Your task to perform on an android device: Open location settings Image 0: 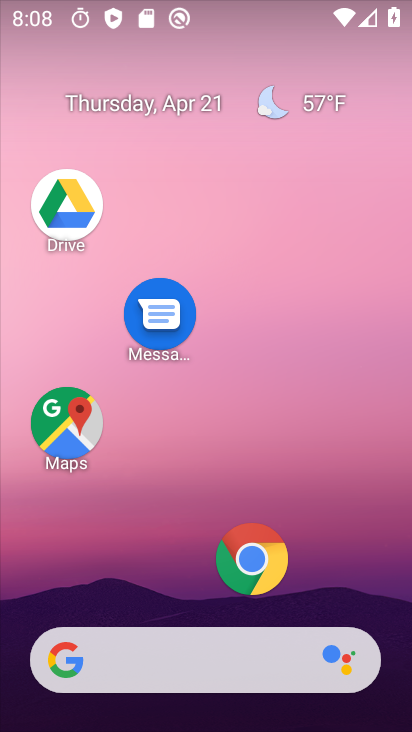
Step 0: drag from (109, 205) to (109, 32)
Your task to perform on an android device: Open location settings Image 1: 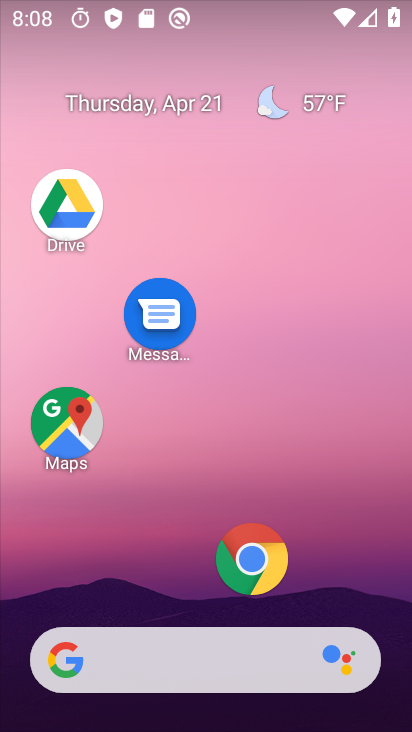
Step 1: drag from (269, 620) to (354, 69)
Your task to perform on an android device: Open location settings Image 2: 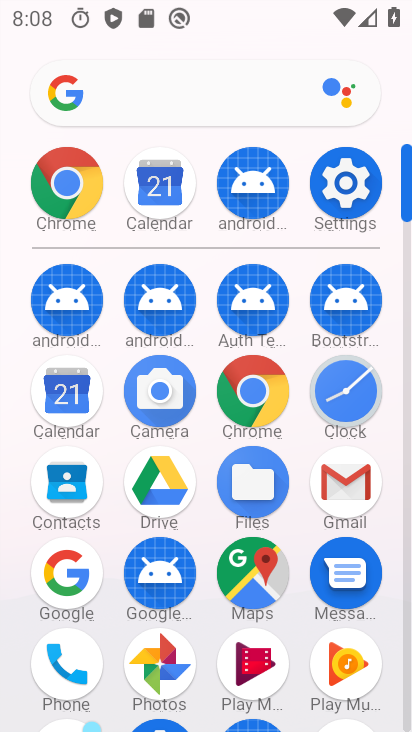
Step 2: click (345, 185)
Your task to perform on an android device: Open location settings Image 3: 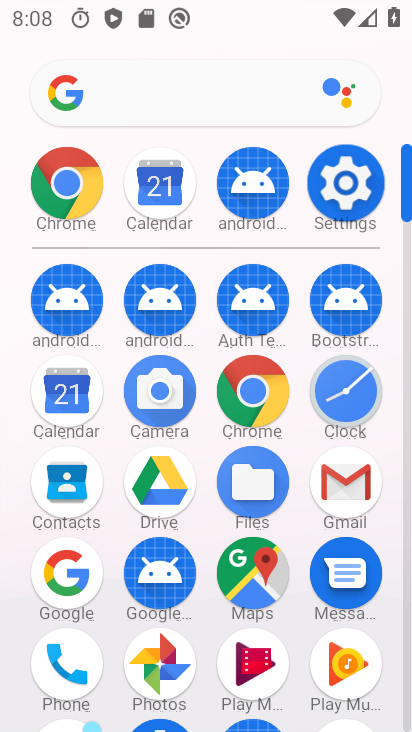
Step 3: click (345, 185)
Your task to perform on an android device: Open location settings Image 4: 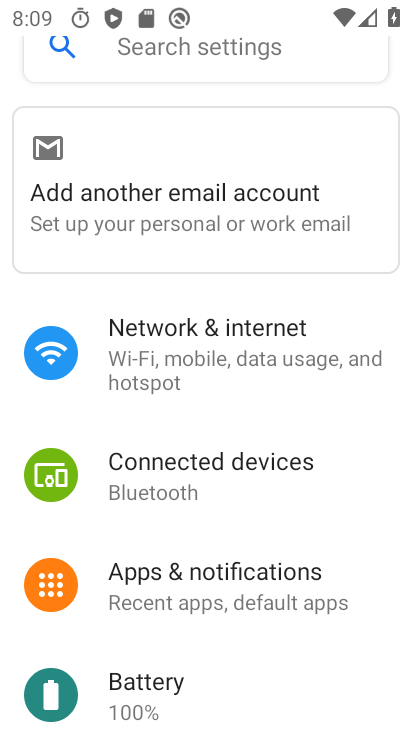
Step 4: drag from (264, 644) to (210, 237)
Your task to perform on an android device: Open location settings Image 5: 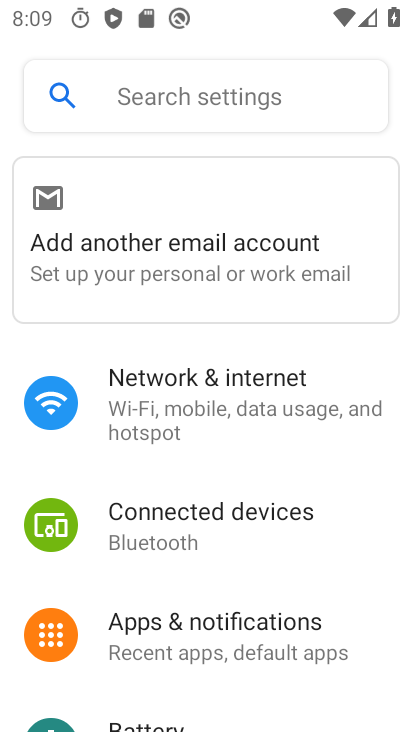
Step 5: drag from (174, 539) to (190, 217)
Your task to perform on an android device: Open location settings Image 6: 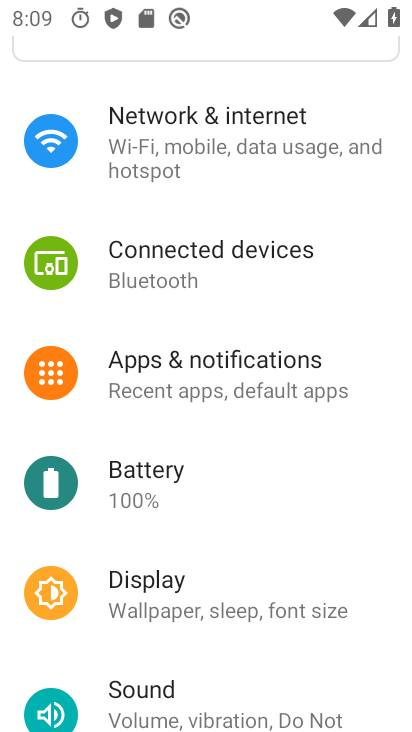
Step 6: drag from (189, 234) to (206, 118)
Your task to perform on an android device: Open location settings Image 7: 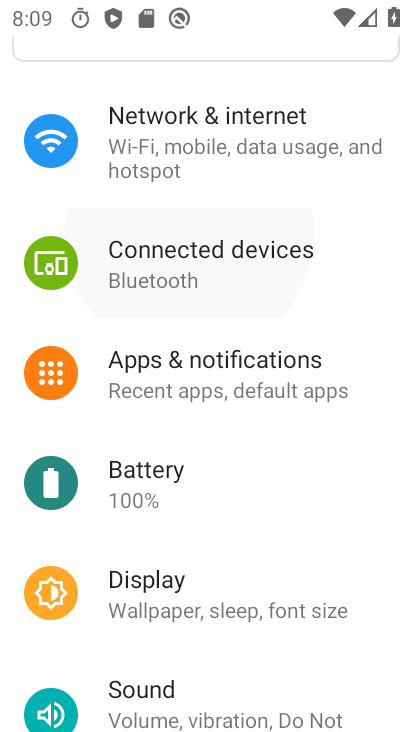
Step 7: drag from (262, 553) to (264, 171)
Your task to perform on an android device: Open location settings Image 8: 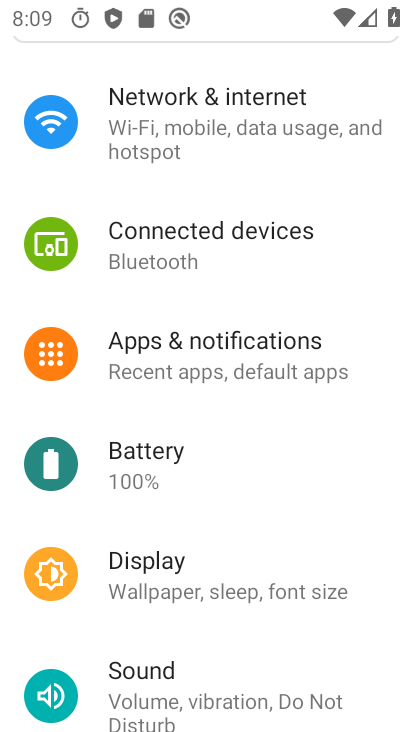
Step 8: drag from (162, 278) to (158, 124)
Your task to perform on an android device: Open location settings Image 9: 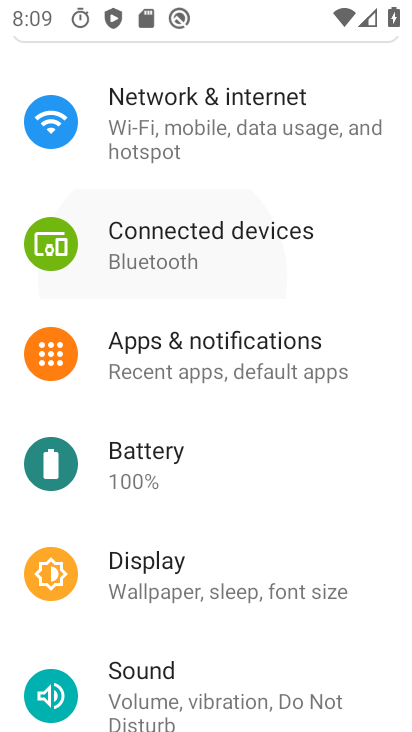
Step 9: drag from (144, 477) to (144, 7)
Your task to perform on an android device: Open location settings Image 10: 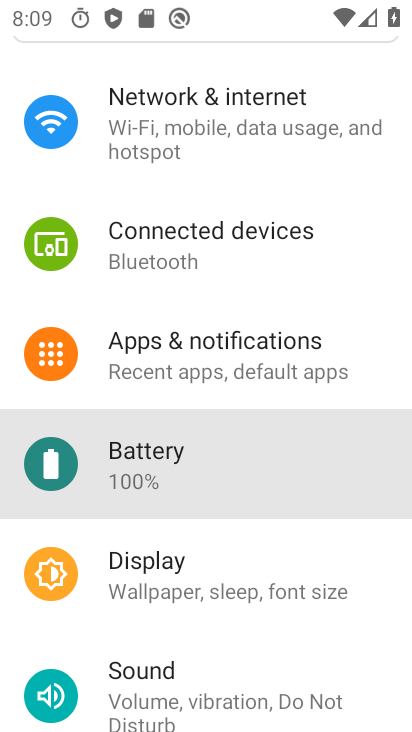
Step 10: drag from (209, 413) to (313, 211)
Your task to perform on an android device: Open location settings Image 11: 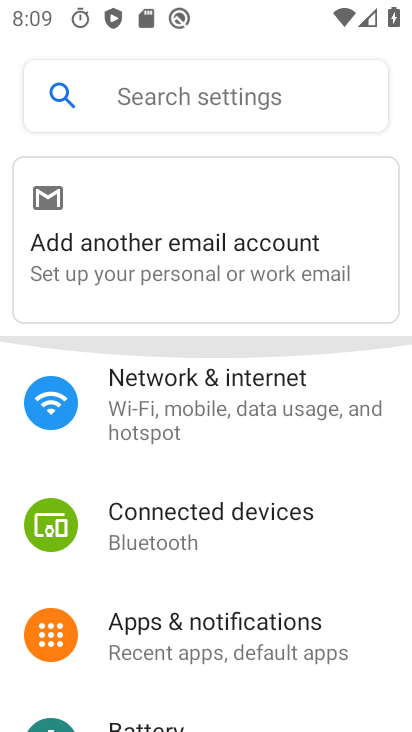
Step 11: drag from (271, 606) to (328, 193)
Your task to perform on an android device: Open location settings Image 12: 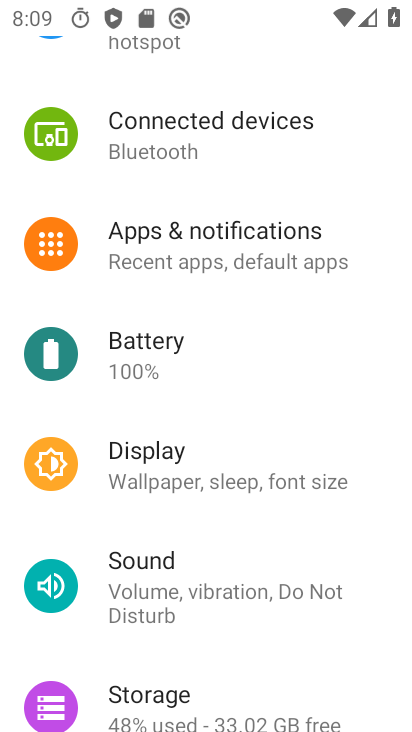
Step 12: drag from (246, 634) to (239, 205)
Your task to perform on an android device: Open location settings Image 13: 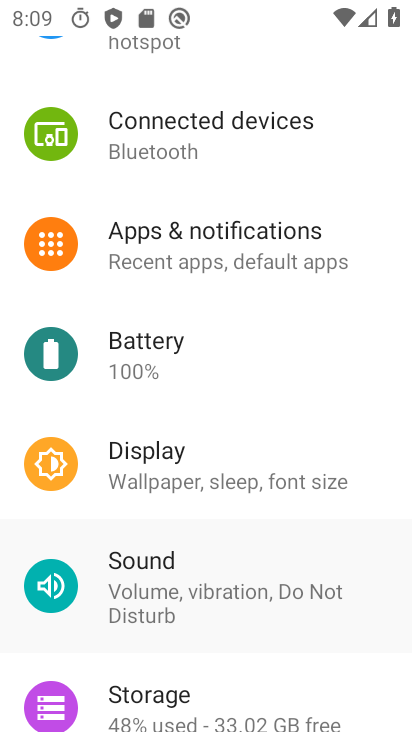
Step 13: drag from (253, 528) to (230, 179)
Your task to perform on an android device: Open location settings Image 14: 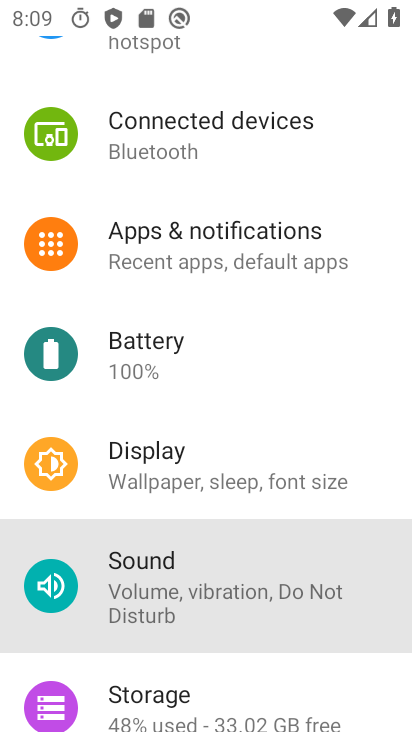
Step 14: drag from (250, 670) to (220, 289)
Your task to perform on an android device: Open location settings Image 15: 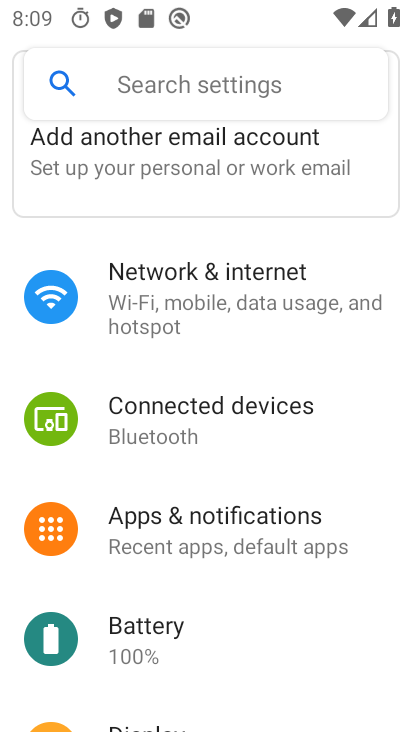
Step 15: drag from (222, 538) to (250, 257)
Your task to perform on an android device: Open location settings Image 16: 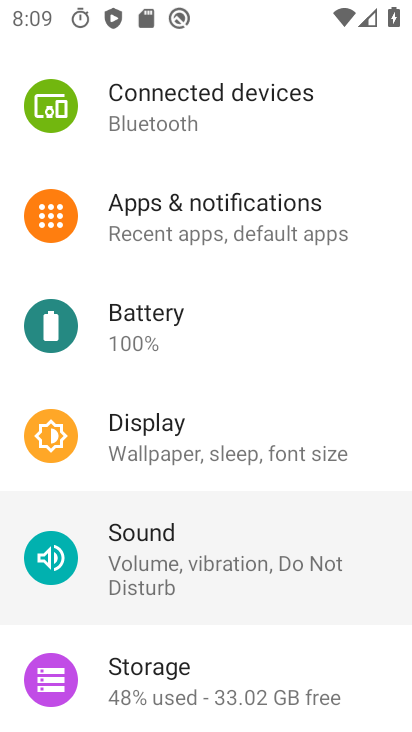
Step 16: drag from (260, 625) to (234, 273)
Your task to perform on an android device: Open location settings Image 17: 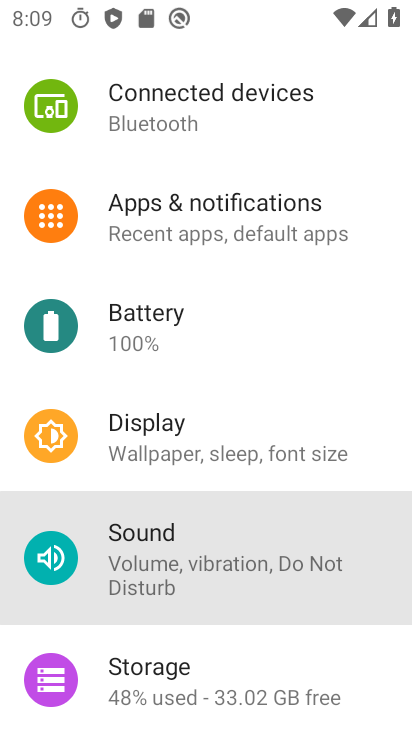
Step 17: drag from (222, 613) to (228, 303)
Your task to perform on an android device: Open location settings Image 18: 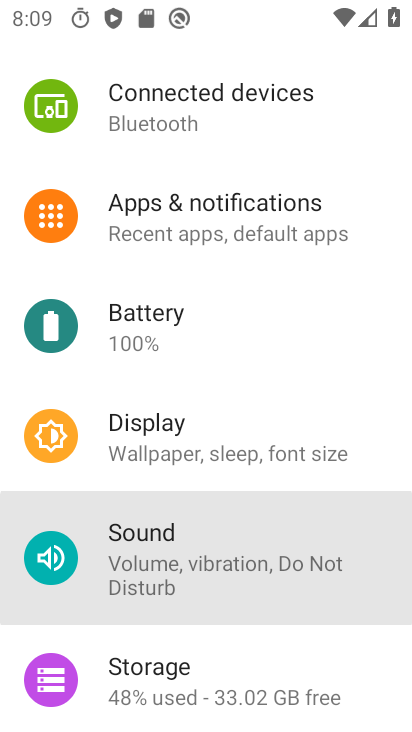
Step 18: drag from (264, 526) to (264, 186)
Your task to perform on an android device: Open location settings Image 19: 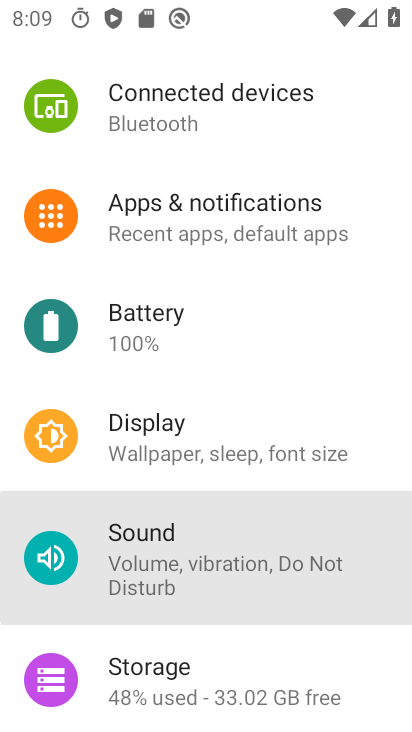
Step 19: drag from (282, 568) to (282, 287)
Your task to perform on an android device: Open location settings Image 20: 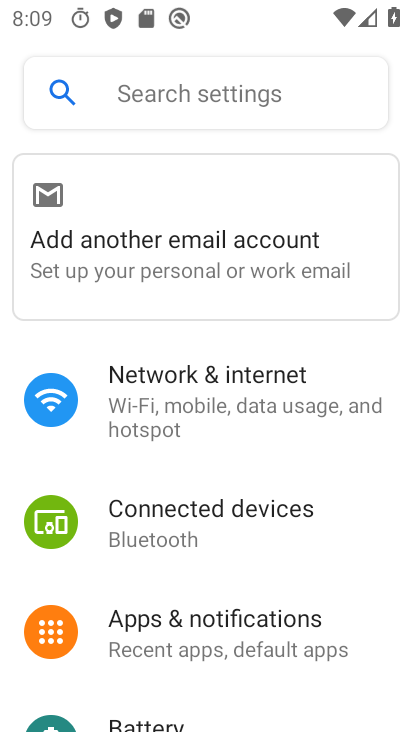
Step 20: drag from (209, 599) to (163, 228)
Your task to perform on an android device: Open location settings Image 21: 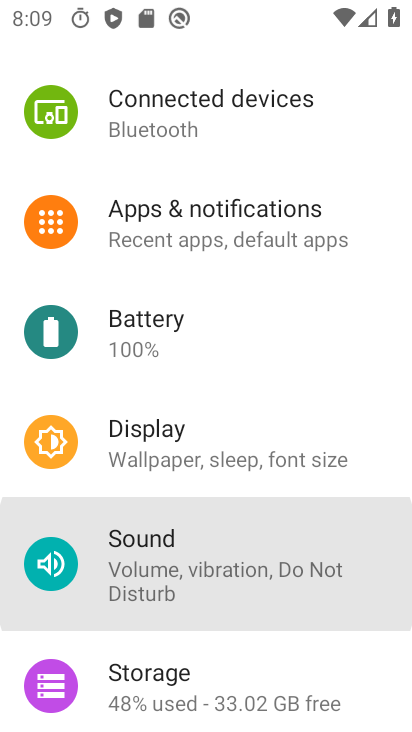
Step 21: drag from (148, 597) to (164, 212)
Your task to perform on an android device: Open location settings Image 22: 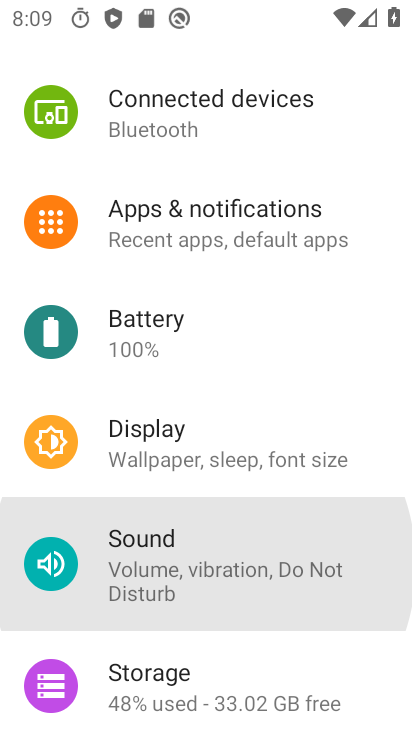
Step 22: drag from (255, 576) to (255, 265)
Your task to perform on an android device: Open location settings Image 23: 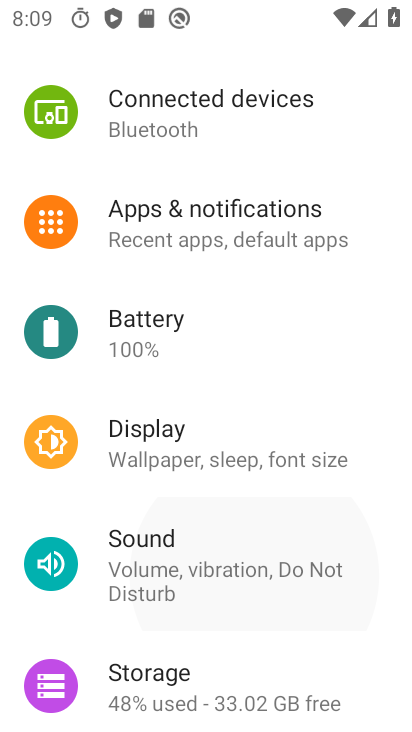
Step 23: drag from (279, 649) to (315, 348)
Your task to perform on an android device: Open location settings Image 24: 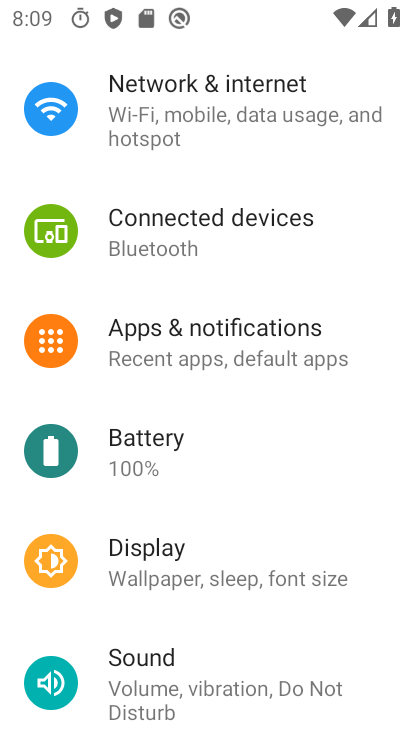
Step 24: drag from (259, 634) to (208, 260)
Your task to perform on an android device: Open location settings Image 25: 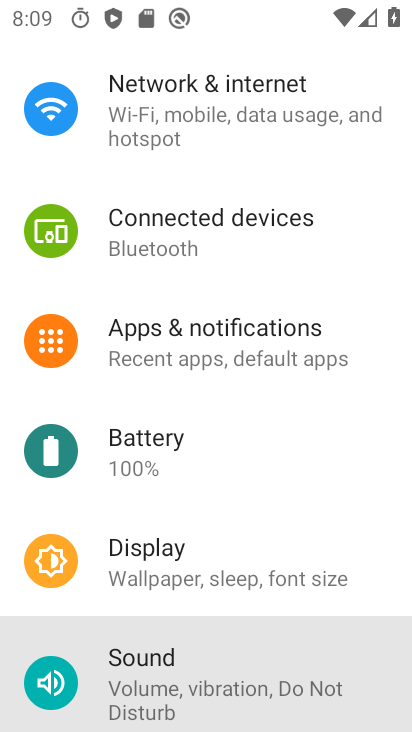
Step 25: drag from (199, 542) to (172, 252)
Your task to perform on an android device: Open location settings Image 26: 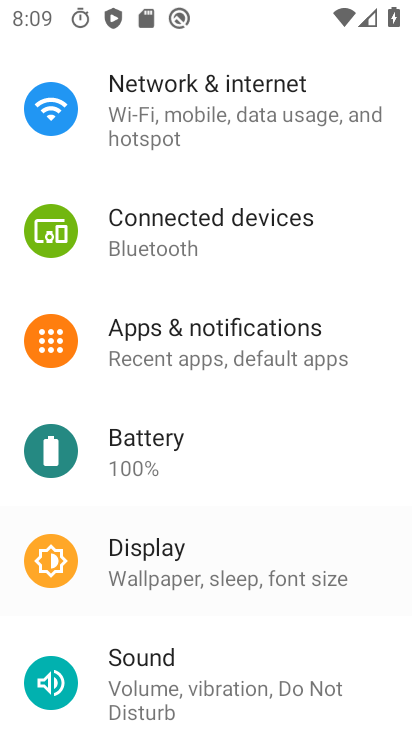
Step 26: drag from (194, 632) to (175, 345)
Your task to perform on an android device: Open location settings Image 27: 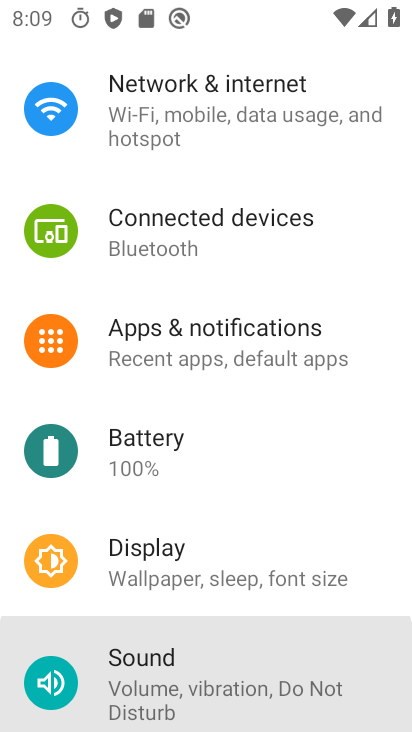
Step 27: drag from (248, 672) to (254, 201)
Your task to perform on an android device: Open location settings Image 28: 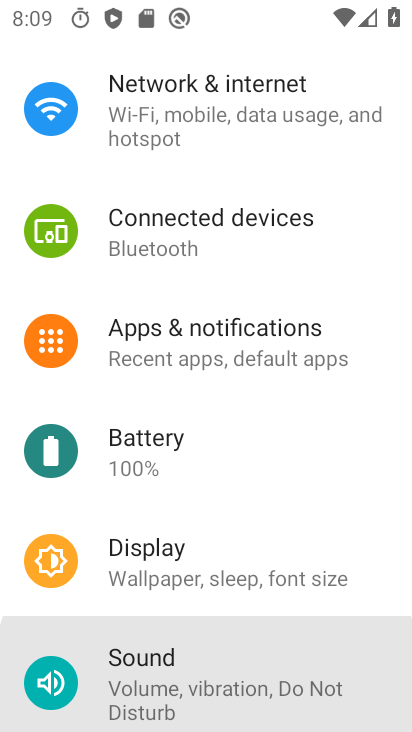
Step 28: drag from (293, 560) to (215, 112)
Your task to perform on an android device: Open location settings Image 29: 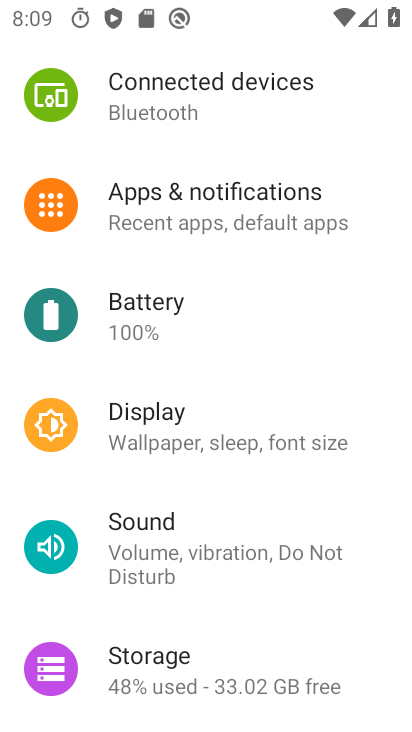
Step 29: drag from (239, 527) to (208, 39)
Your task to perform on an android device: Open location settings Image 30: 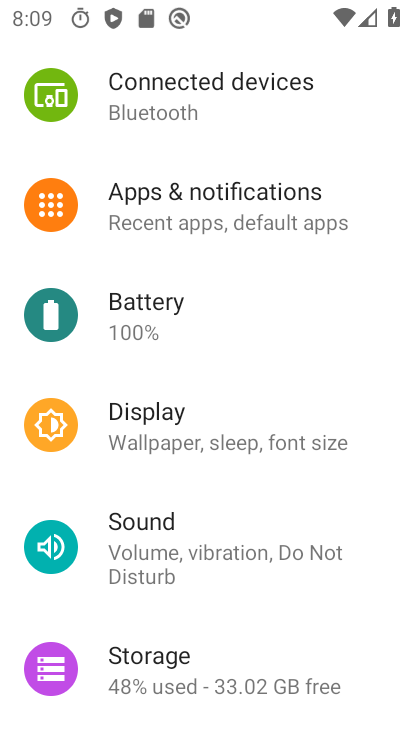
Step 30: drag from (252, 651) to (229, 268)
Your task to perform on an android device: Open location settings Image 31: 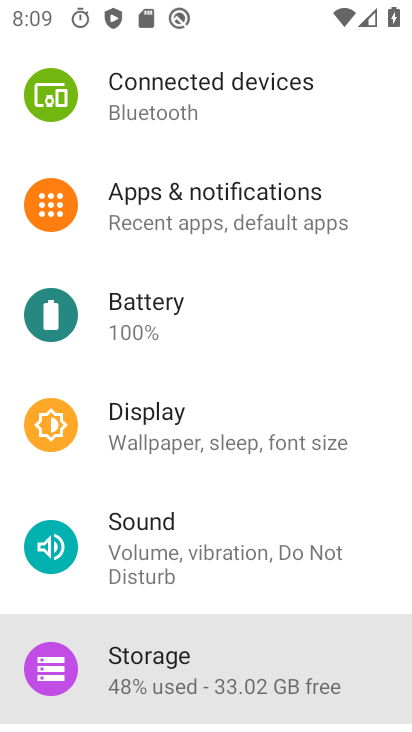
Step 31: drag from (251, 539) to (161, 141)
Your task to perform on an android device: Open location settings Image 32: 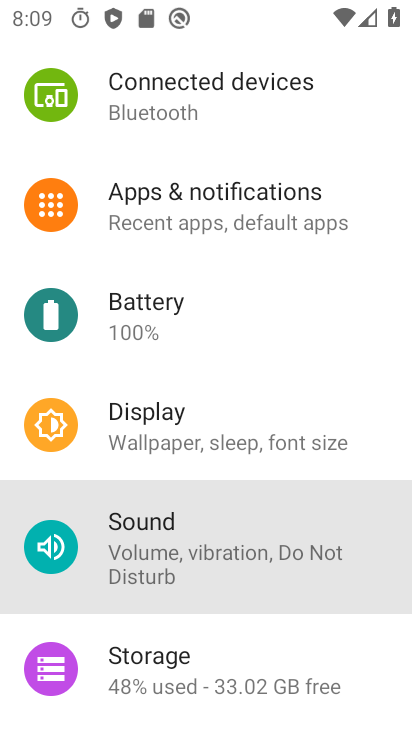
Step 32: drag from (179, 633) to (202, 335)
Your task to perform on an android device: Open location settings Image 33: 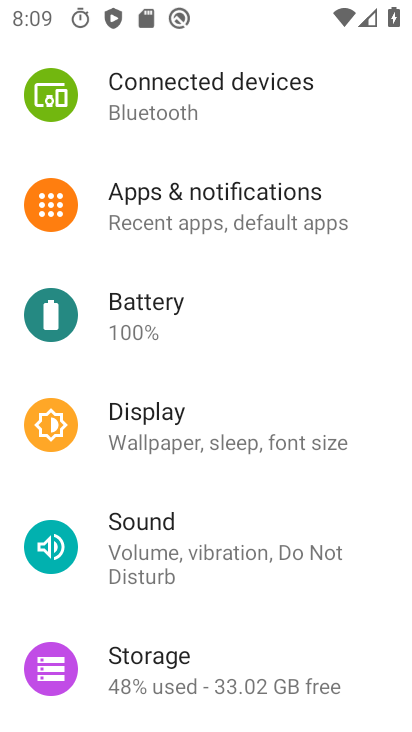
Step 33: drag from (277, 617) to (364, 331)
Your task to perform on an android device: Open location settings Image 34: 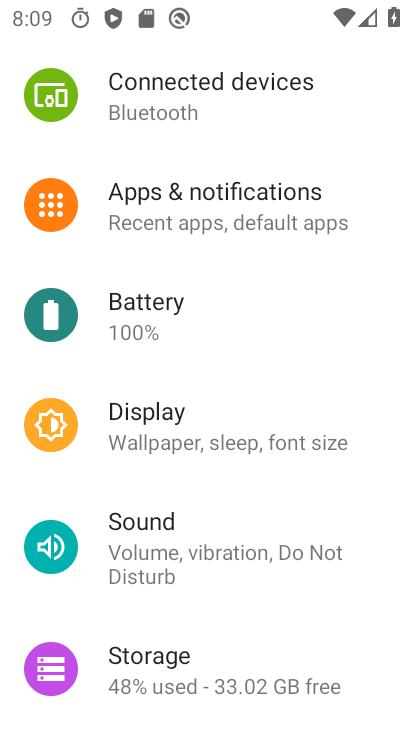
Step 34: drag from (216, 576) to (227, 111)
Your task to perform on an android device: Open location settings Image 35: 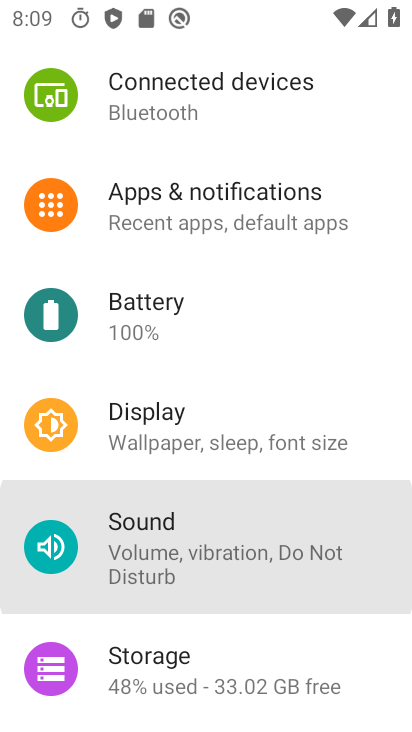
Step 35: drag from (282, 516) to (259, 101)
Your task to perform on an android device: Open location settings Image 36: 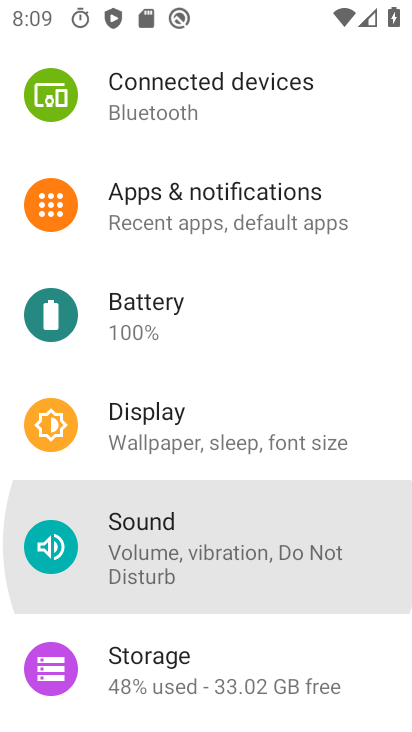
Step 36: drag from (306, 622) to (284, 144)
Your task to perform on an android device: Open location settings Image 37: 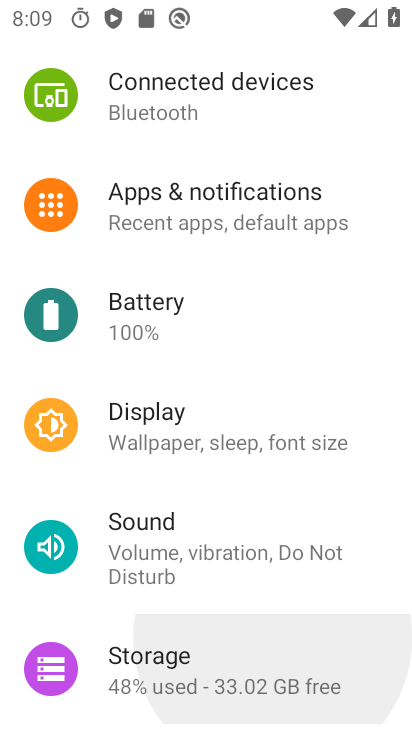
Step 37: drag from (255, 646) to (238, 186)
Your task to perform on an android device: Open location settings Image 38: 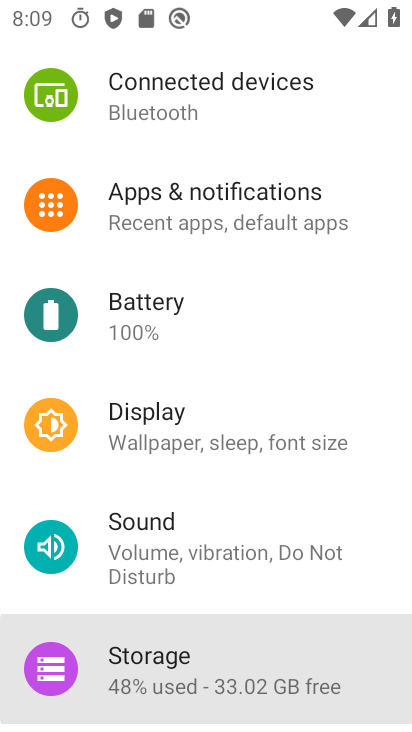
Step 38: drag from (271, 692) to (233, 296)
Your task to perform on an android device: Open location settings Image 39: 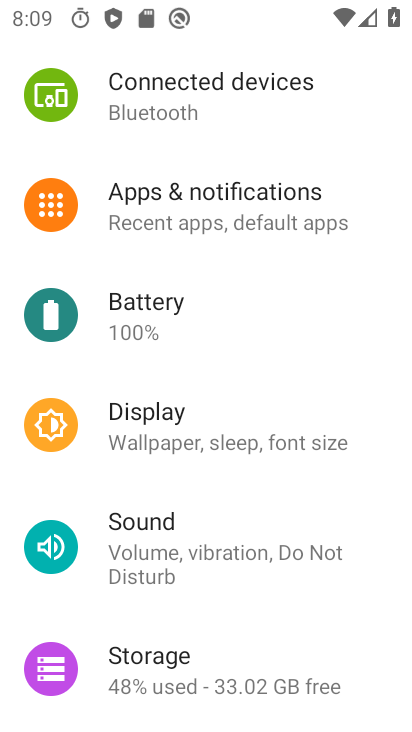
Step 39: drag from (295, 669) to (211, 298)
Your task to perform on an android device: Open location settings Image 40: 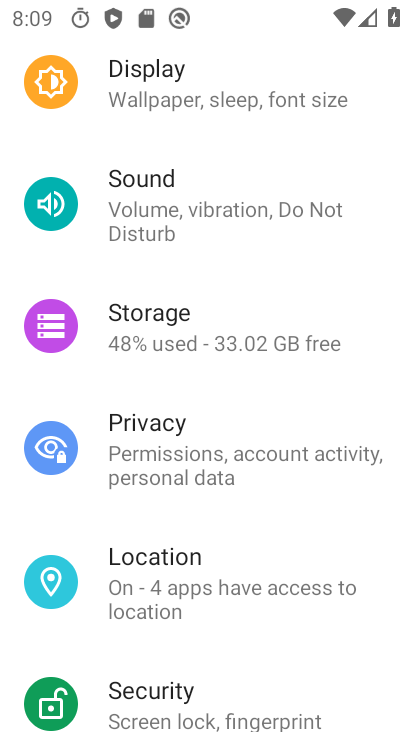
Step 40: click (195, 163)
Your task to perform on an android device: Open location settings Image 41: 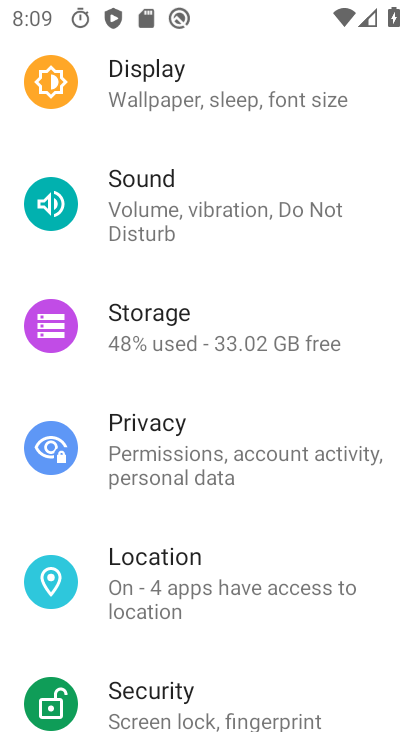
Step 41: drag from (203, 561) to (207, 219)
Your task to perform on an android device: Open location settings Image 42: 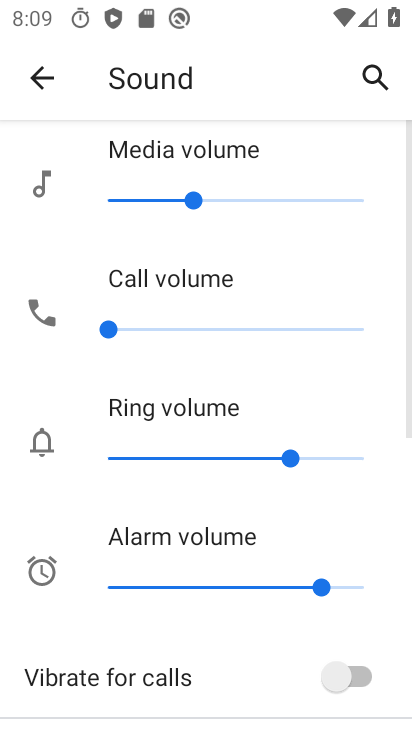
Step 42: click (34, 71)
Your task to perform on an android device: Open location settings Image 43: 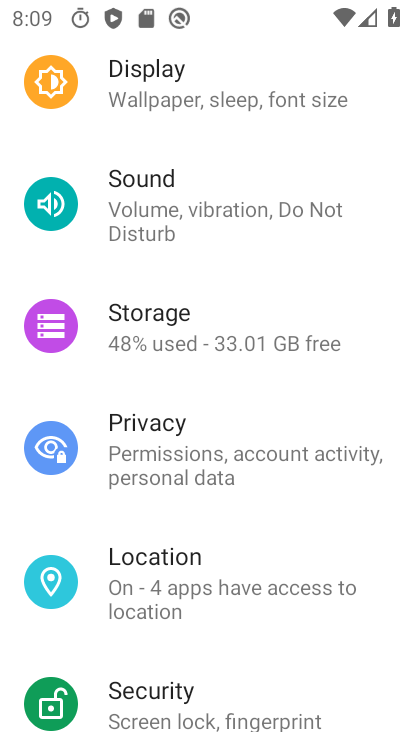
Step 43: click (190, 579)
Your task to perform on an android device: Open location settings Image 44: 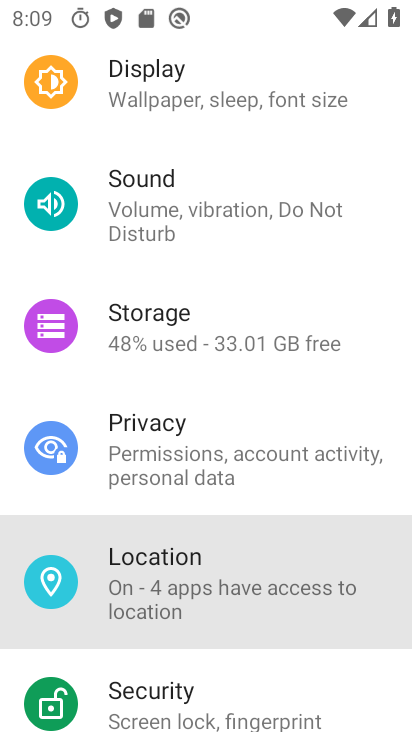
Step 44: click (190, 579)
Your task to perform on an android device: Open location settings Image 45: 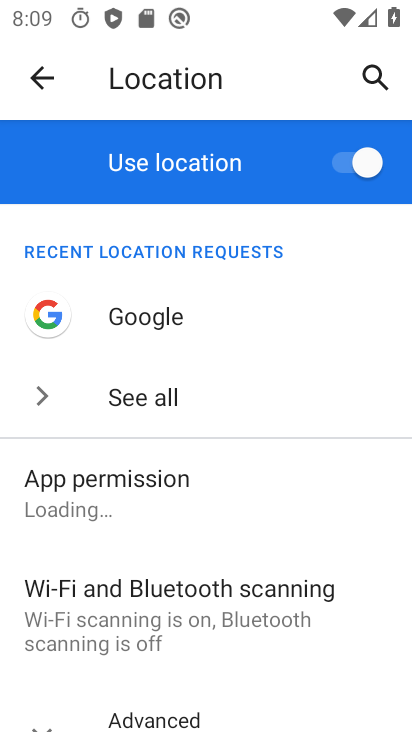
Step 45: task complete